Your task to perform on an android device: What's the weather? Image 0: 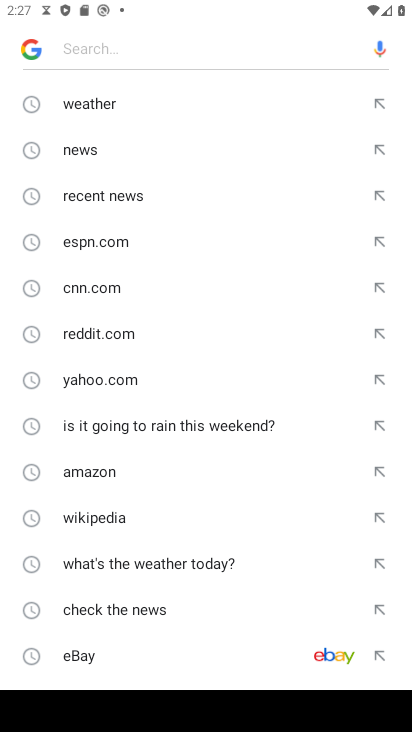
Step 0: press home button
Your task to perform on an android device: What's the weather? Image 1: 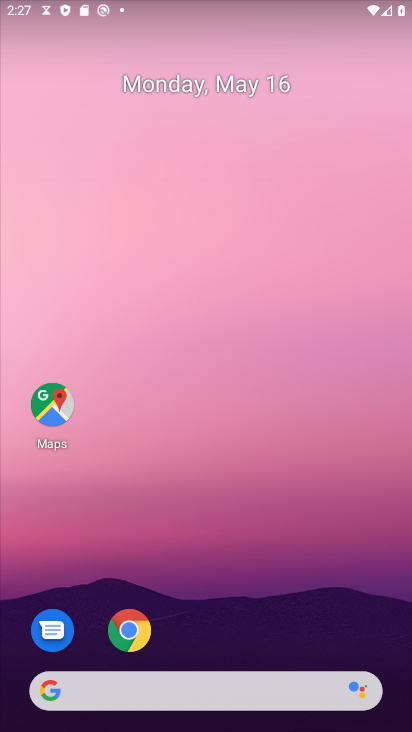
Step 1: drag from (21, 305) to (407, 323)
Your task to perform on an android device: What's the weather? Image 2: 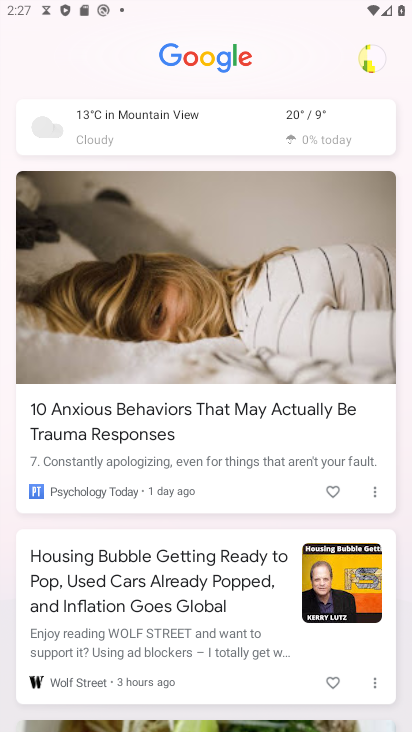
Step 2: click (220, 125)
Your task to perform on an android device: What's the weather? Image 3: 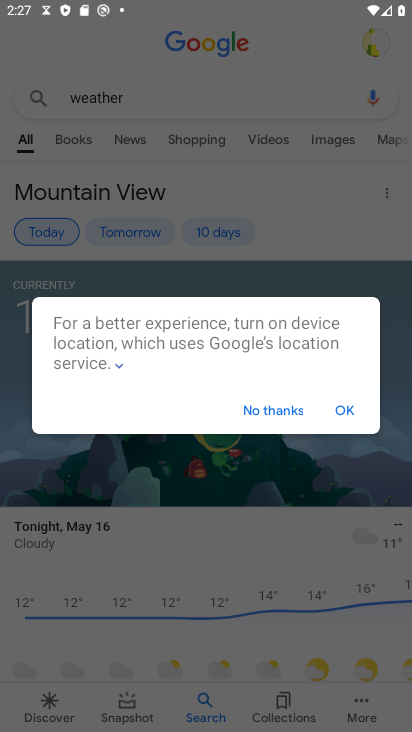
Step 3: click (346, 408)
Your task to perform on an android device: What's the weather? Image 4: 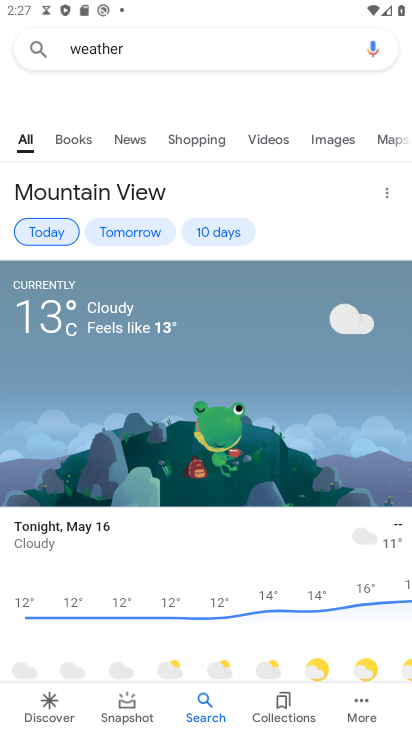
Step 4: task complete